Your task to perform on an android device: Open sound settings Image 0: 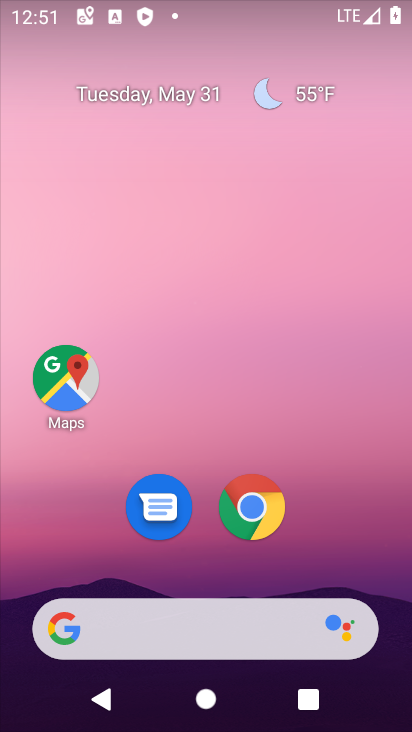
Step 0: drag from (404, 630) to (252, 35)
Your task to perform on an android device: Open sound settings Image 1: 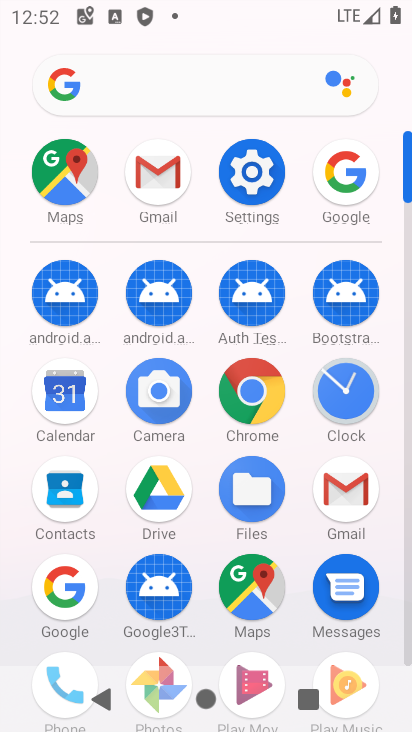
Step 1: click (257, 153)
Your task to perform on an android device: Open sound settings Image 2: 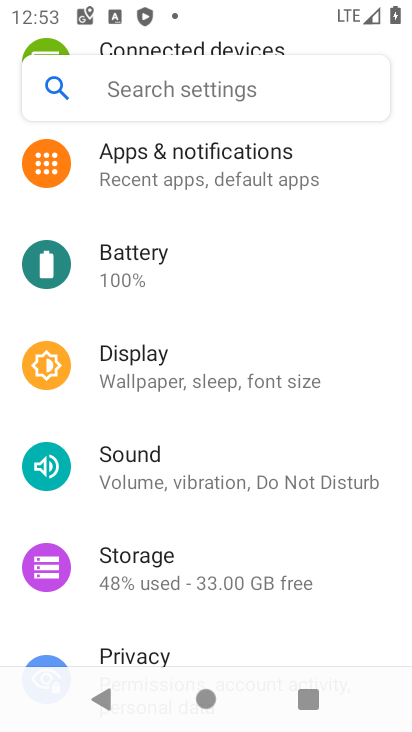
Step 2: click (171, 472)
Your task to perform on an android device: Open sound settings Image 3: 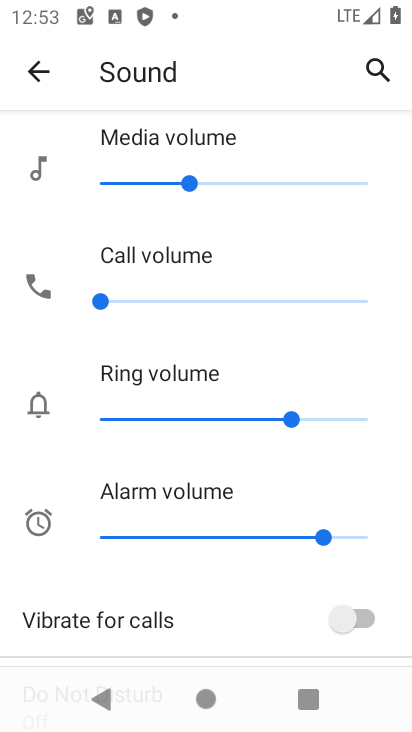
Step 3: task complete